Your task to perform on an android device: open device folders in google photos Image 0: 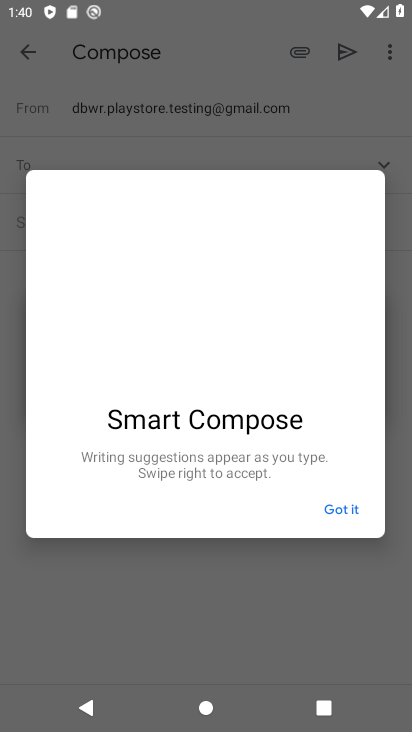
Step 0: press back button
Your task to perform on an android device: open device folders in google photos Image 1: 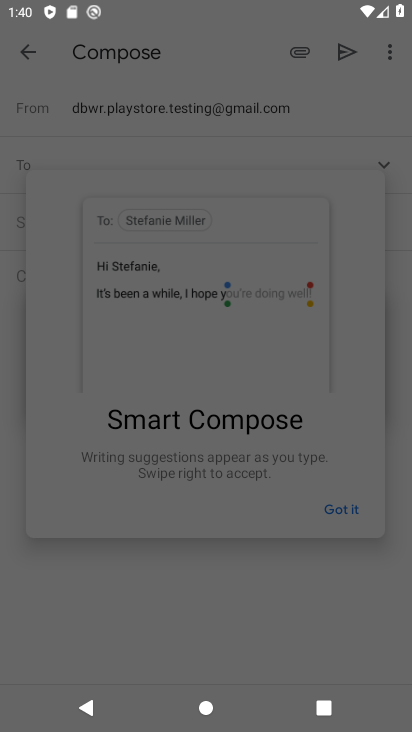
Step 1: press home button
Your task to perform on an android device: open device folders in google photos Image 2: 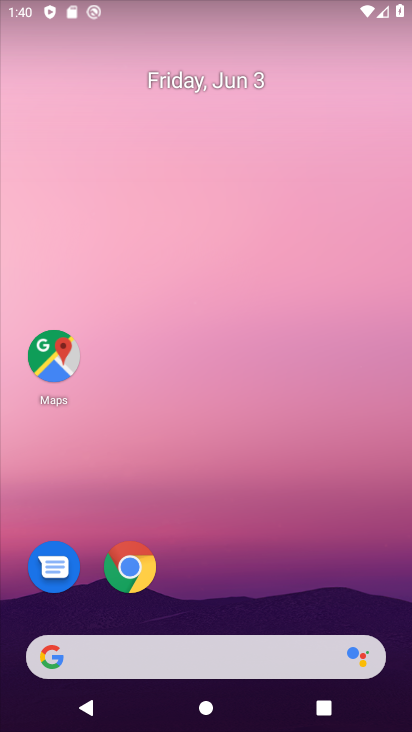
Step 2: drag from (229, 630) to (298, 145)
Your task to perform on an android device: open device folders in google photos Image 3: 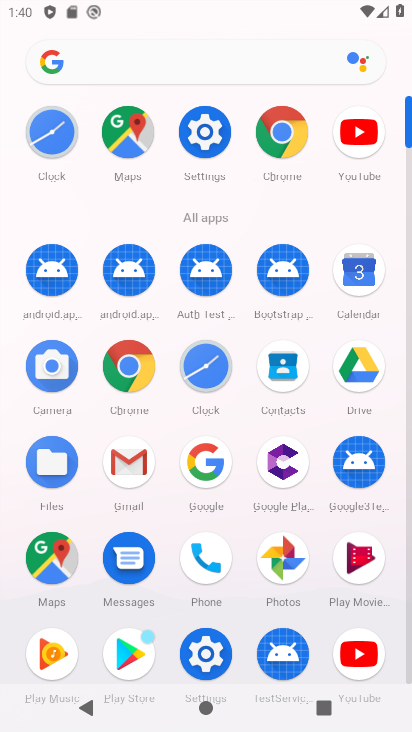
Step 3: click (285, 568)
Your task to perform on an android device: open device folders in google photos Image 4: 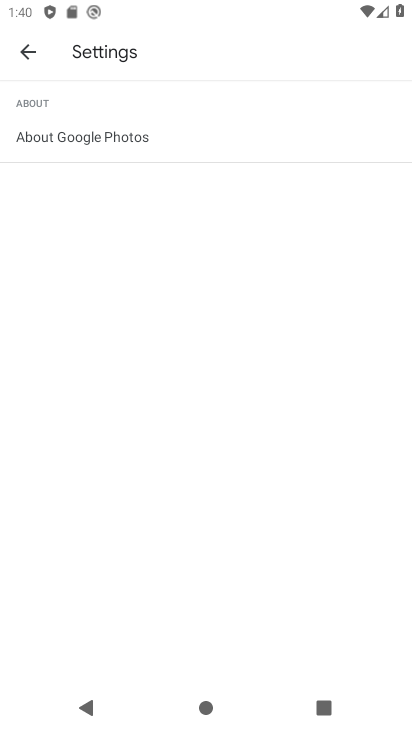
Step 4: click (29, 51)
Your task to perform on an android device: open device folders in google photos Image 5: 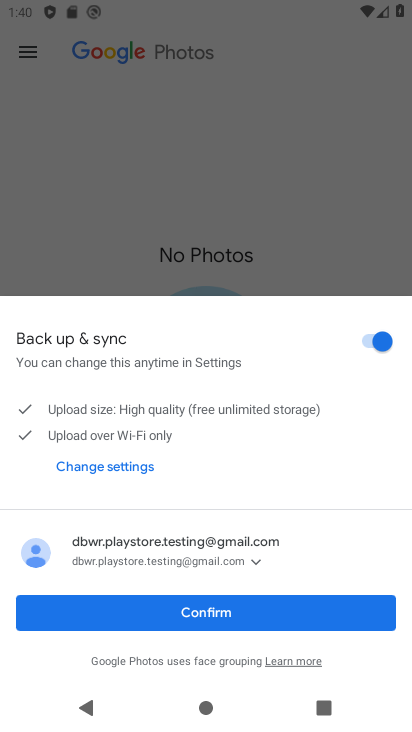
Step 5: click (157, 605)
Your task to perform on an android device: open device folders in google photos Image 6: 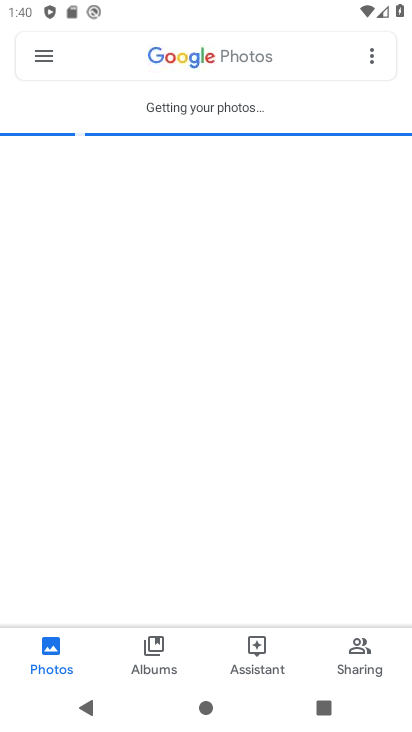
Step 6: click (32, 44)
Your task to perform on an android device: open device folders in google photos Image 7: 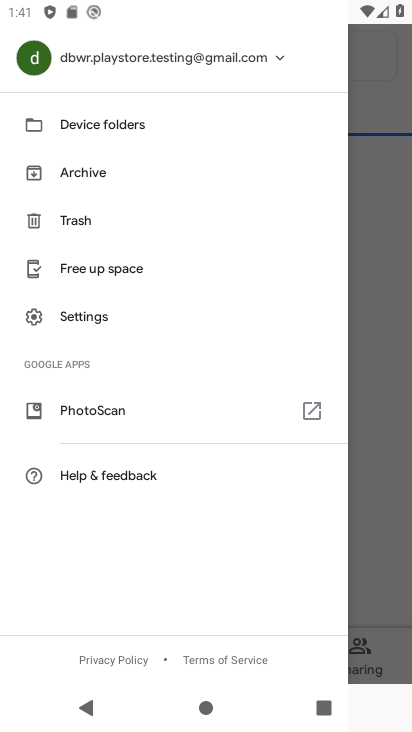
Step 7: click (127, 121)
Your task to perform on an android device: open device folders in google photos Image 8: 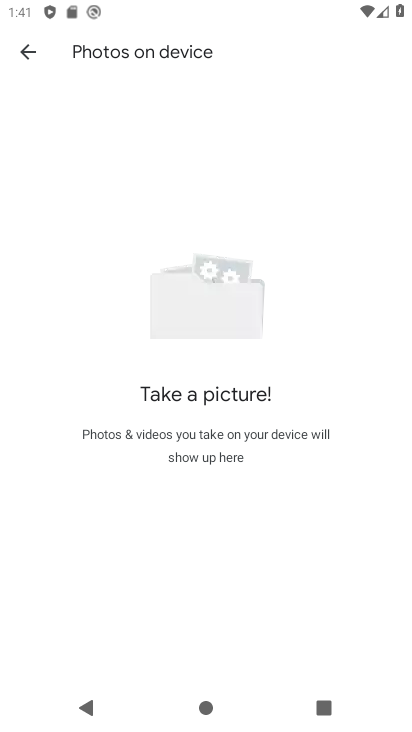
Step 8: task complete